Your task to perform on an android device: visit the assistant section in the google photos Image 0: 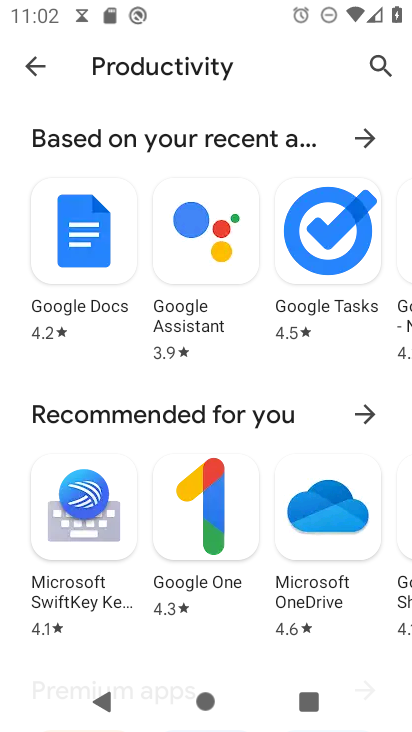
Step 0: press home button
Your task to perform on an android device: visit the assistant section in the google photos Image 1: 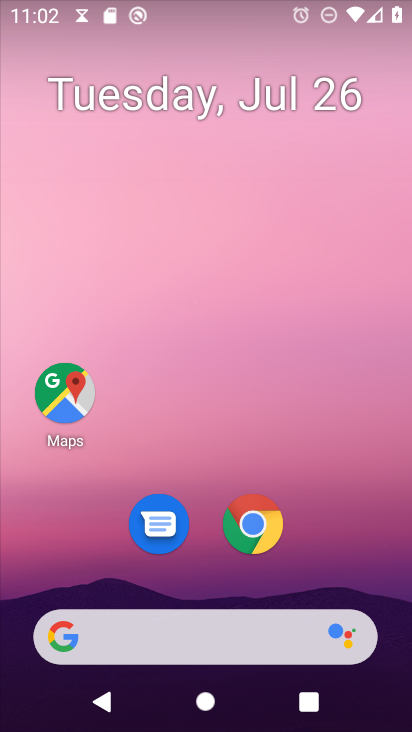
Step 1: drag from (203, 636) to (294, 112)
Your task to perform on an android device: visit the assistant section in the google photos Image 2: 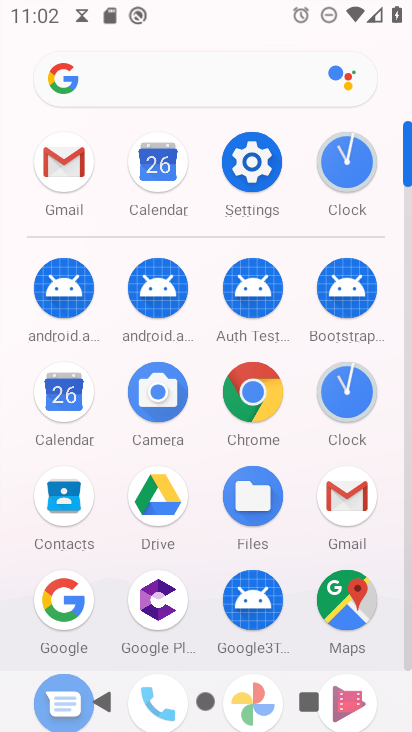
Step 2: drag from (205, 548) to (271, 87)
Your task to perform on an android device: visit the assistant section in the google photos Image 3: 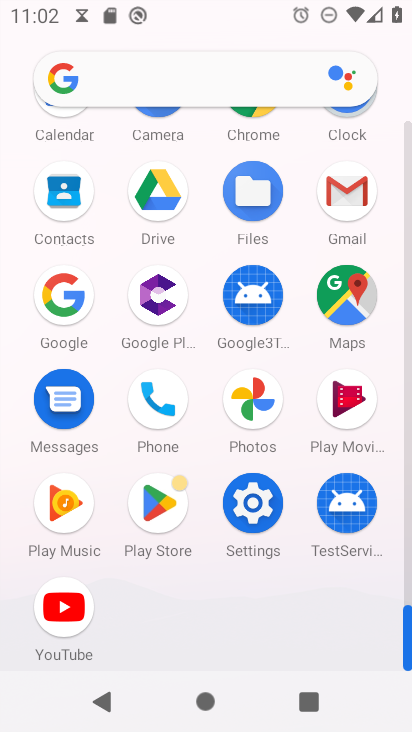
Step 3: click (249, 405)
Your task to perform on an android device: visit the assistant section in the google photos Image 4: 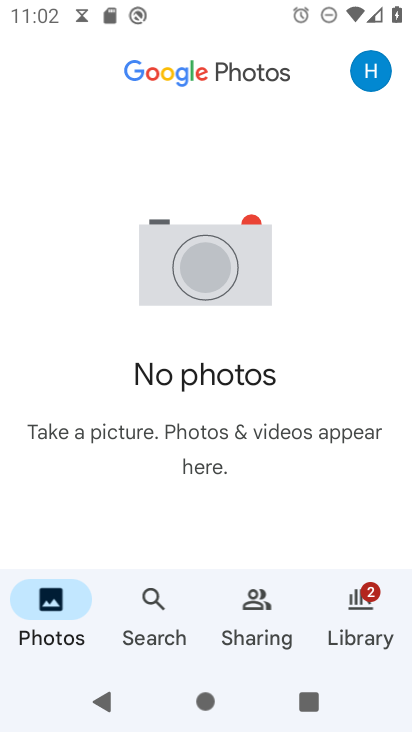
Step 4: click (365, 75)
Your task to perform on an android device: visit the assistant section in the google photos Image 5: 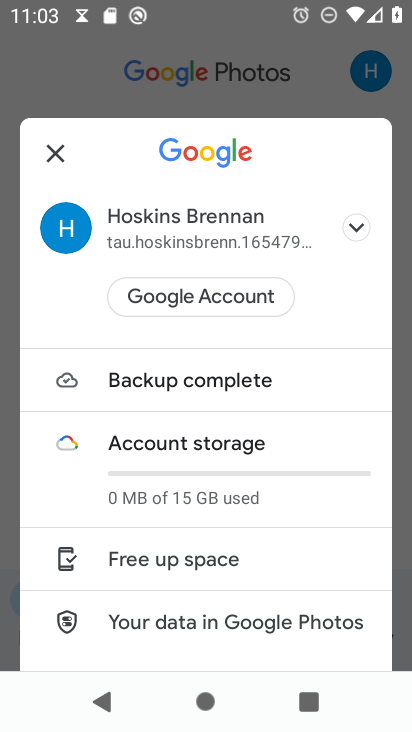
Step 5: drag from (180, 581) to (296, 218)
Your task to perform on an android device: visit the assistant section in the google photos Image 6: 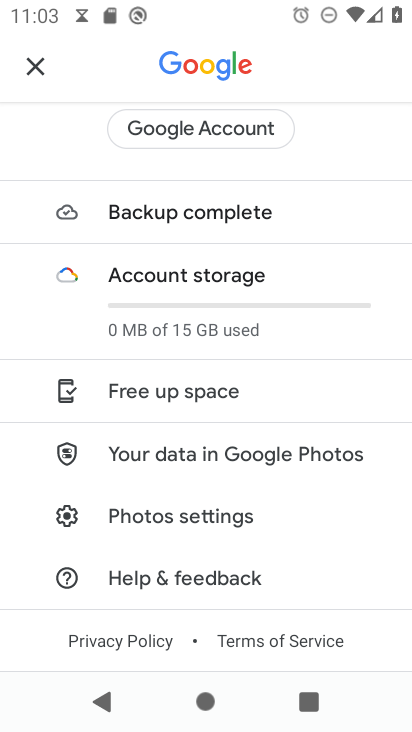
Step 6: click (194, 512)
Your task to perform on an android device: visit the assistant section in the google photos Image 7: 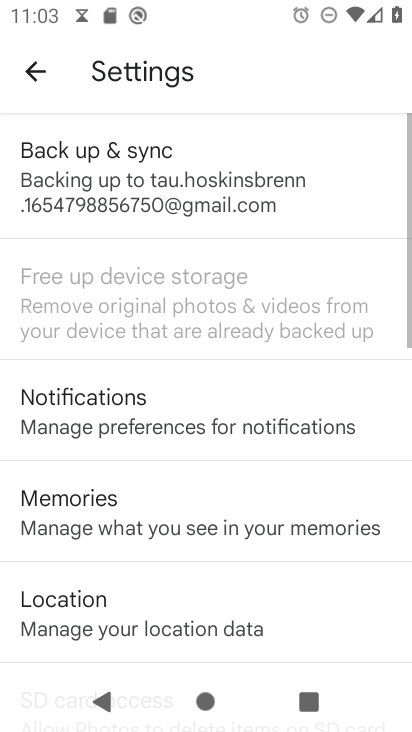
Step 7: task complete